Your task to perform on an android device: Open the calendar app, open the side menu, and click the "Day" option Image 0: 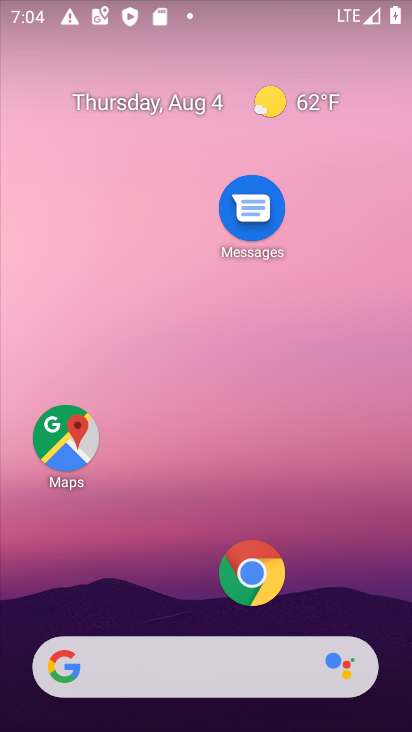
Step 0: drag from (383, 556) to (401, 101)
Your task to perform on an android device: Open the calendar app, open the side menu, and click the "Day" option Image 1: 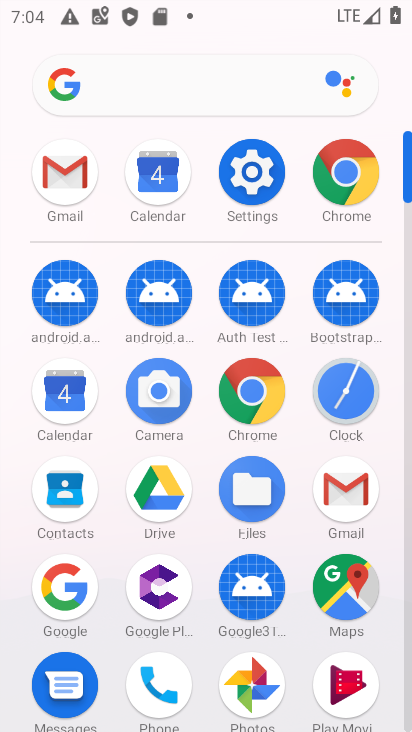
Step 1: click (69, 403)
Your task to perform on an android device: Open the calendar app, open the side menu, and click the "Day" option Image 2: 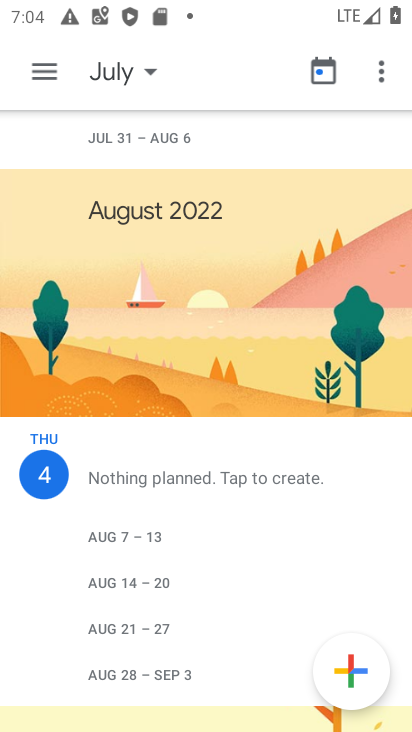
Step 2: click (46, 65)
Your task to perform on an android device: Open the calendar app, open the side menu, and click the "Day" option Image 3: 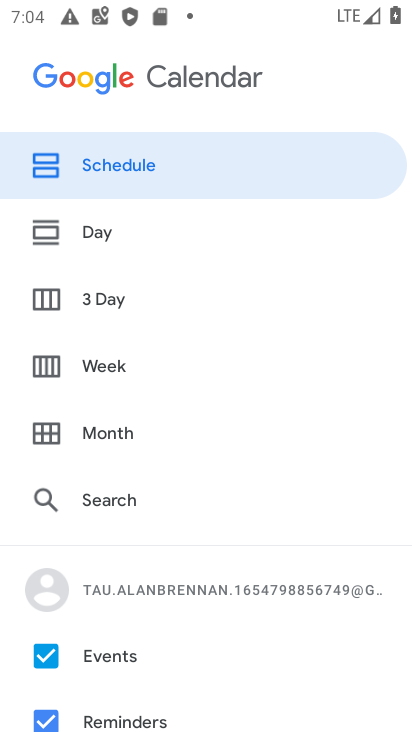
Step 3: click (92, 228)
Your task to perform on an android device: Open the calendar app, open the side menu, and click the "Day" option Image 4: 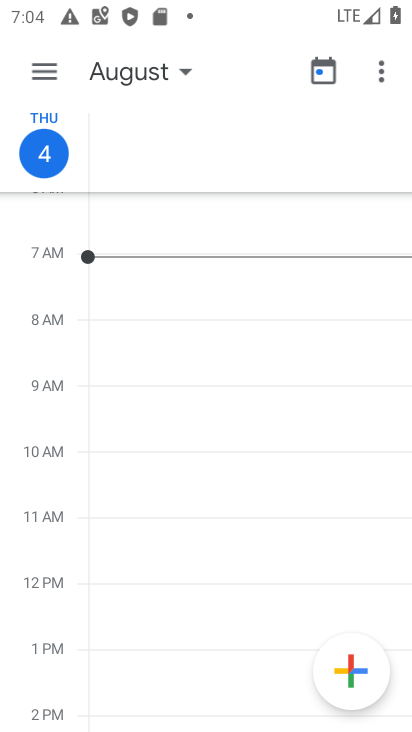
Step 4: task complete